Your task to perform on an android device: Open calendar and show me the third week of next month Image 0: 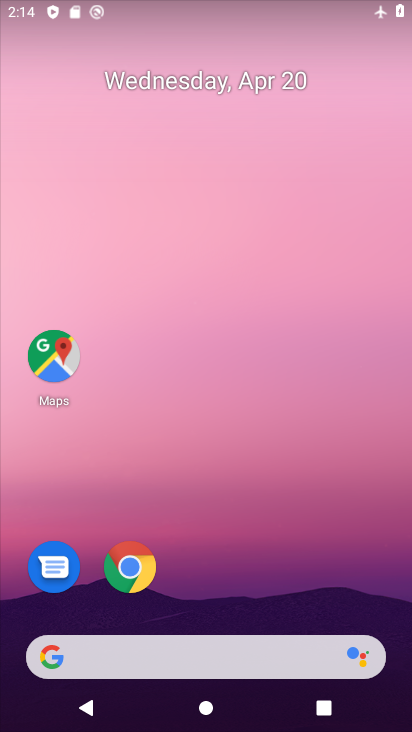
Step 0: click (183, 194)
Your task to perform on an android device: Open calendar and show me the third week of next month Image 1: 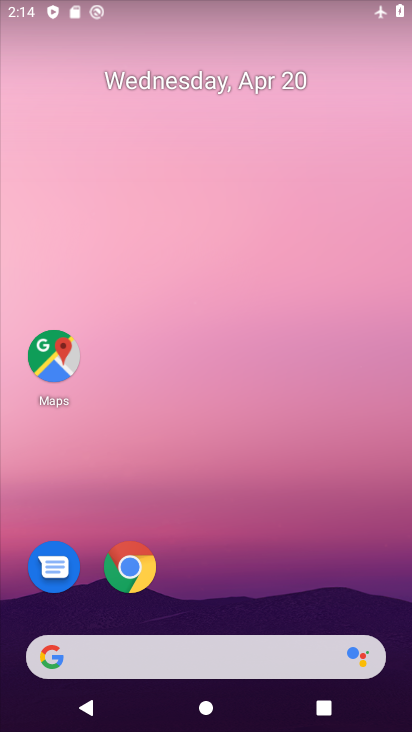
Step 1: drag from (202, 646) to (197, 184)
Your task to perform on an android device: Open calendar and show me the third week of next month Image 2: 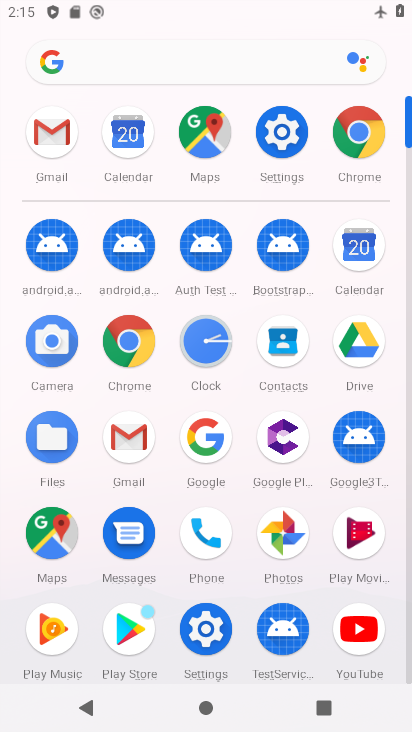
Step 2: click (365, 236)
Your task to perform on an android device: Open calendar and show me the third week of next month Image 3: 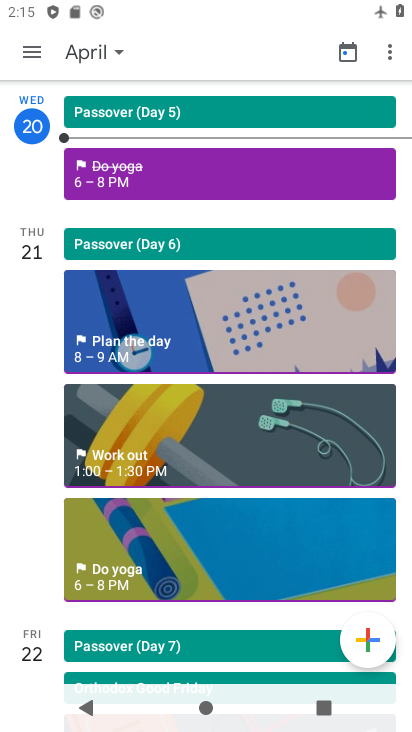
Step 3: click (35, 44)
Your task to perform on an android device: Open calendar and show me the third week of next month Image 4: 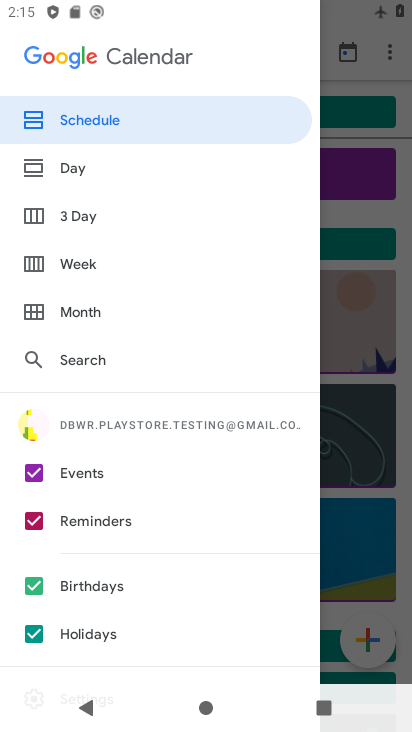
Step 4: click (94, 267)
Your task to perform on an android device: Open calendar and show me the third week of next month Image 5: 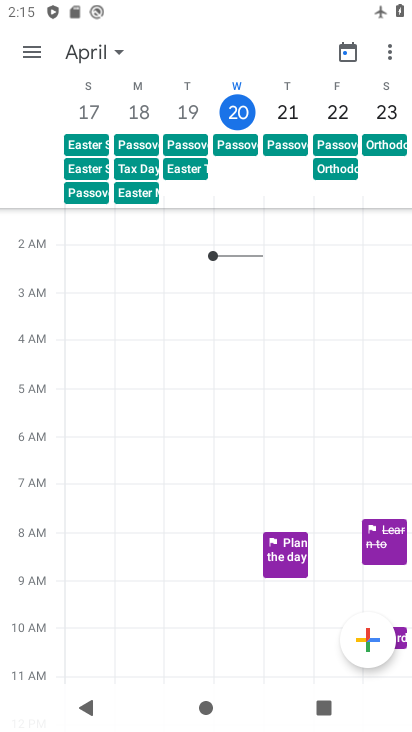
Step 5: task complete